Your task to perform on an android device: uninstall "PUBG MOBILE" Image 0: 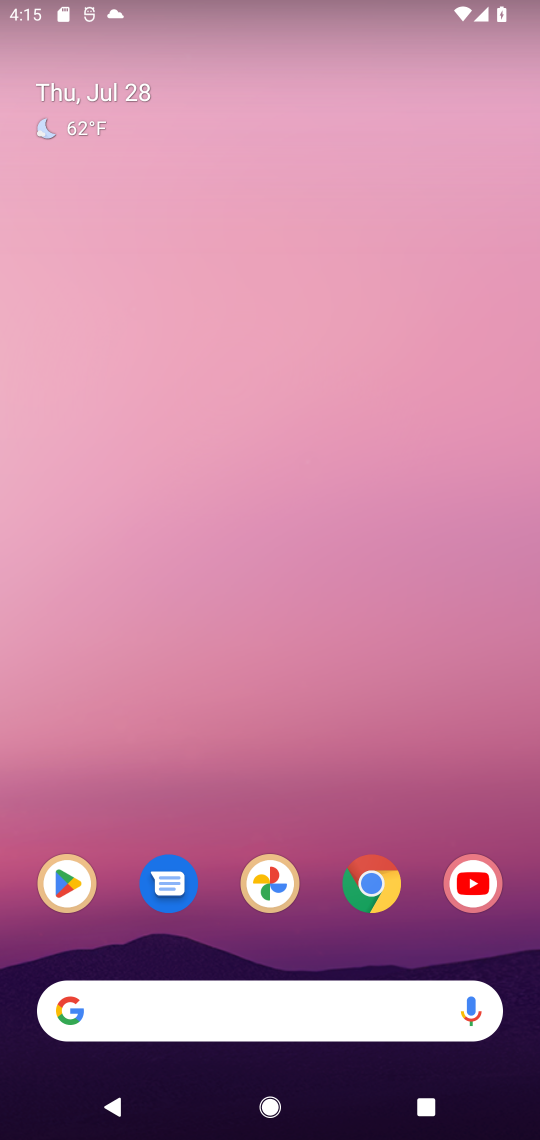
Step 0: drag from (263, 859) to (466, 14)
Your task to perform on an android device: uninstall "PUBG MOBILE" Image 1: 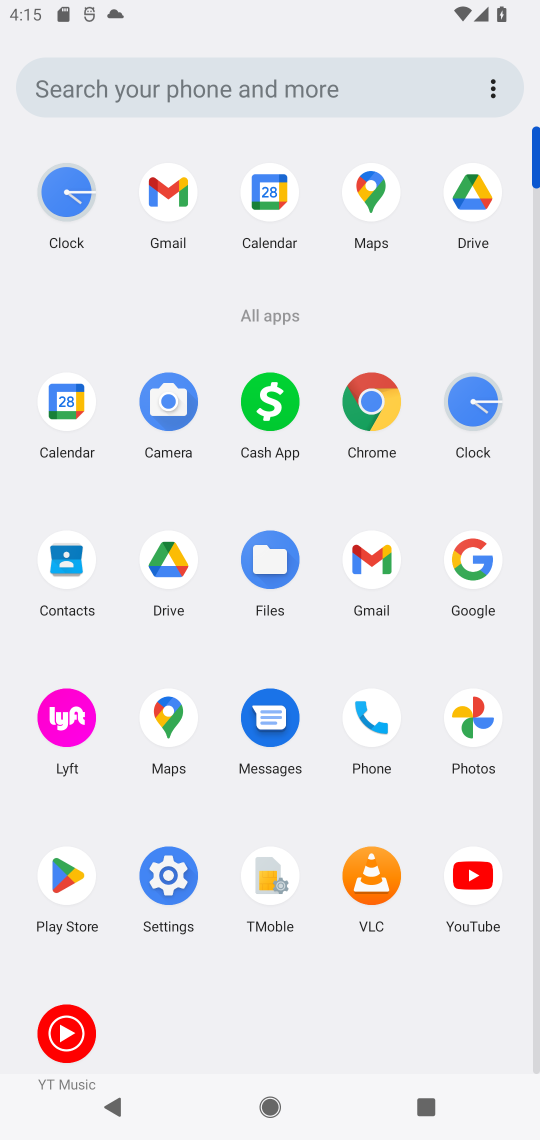
Step 1: click (63, 896)
Your task to perform on an android device: uninstall "PUBG MOBILE" Image 2: 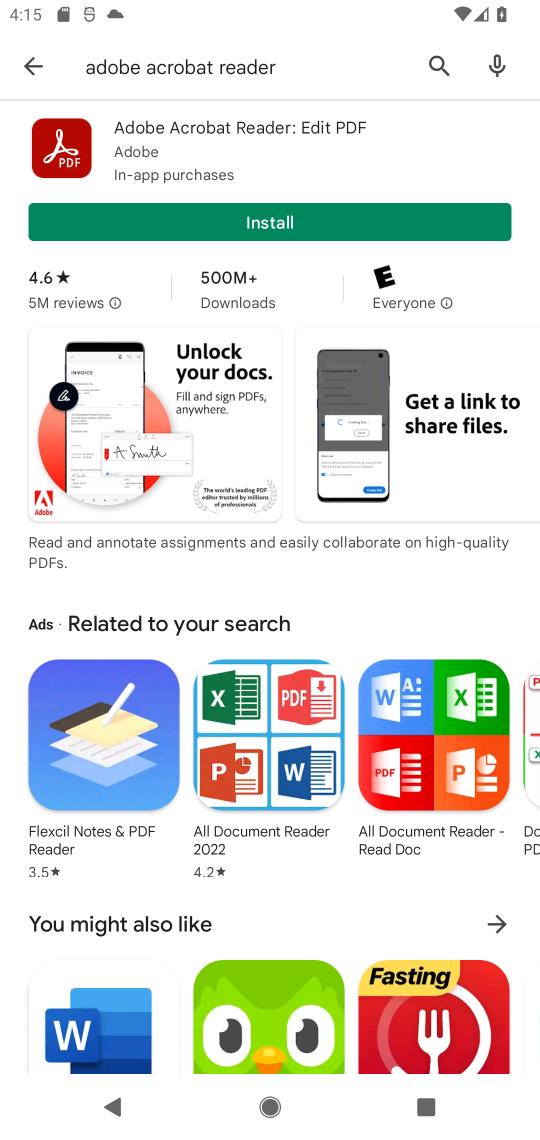
Step 2: click (433, 52)
Your task to perform on an android device: uninstall "PUBG MOBILE" Image 3: 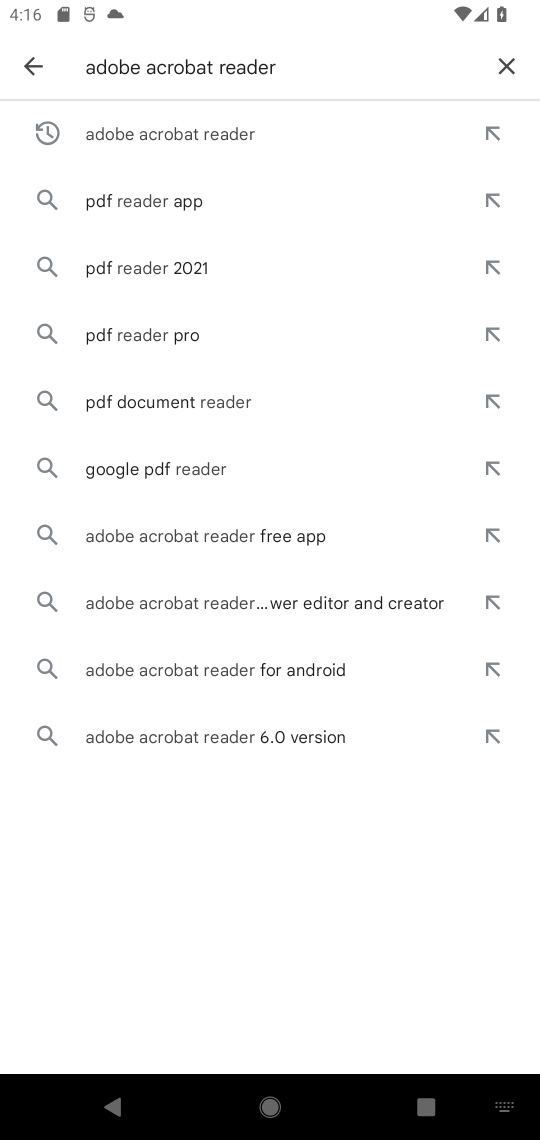
Step 3: click (496, 67)
Your task to perform on an android device: uninstall "PUBG MOBILE" Image 4: 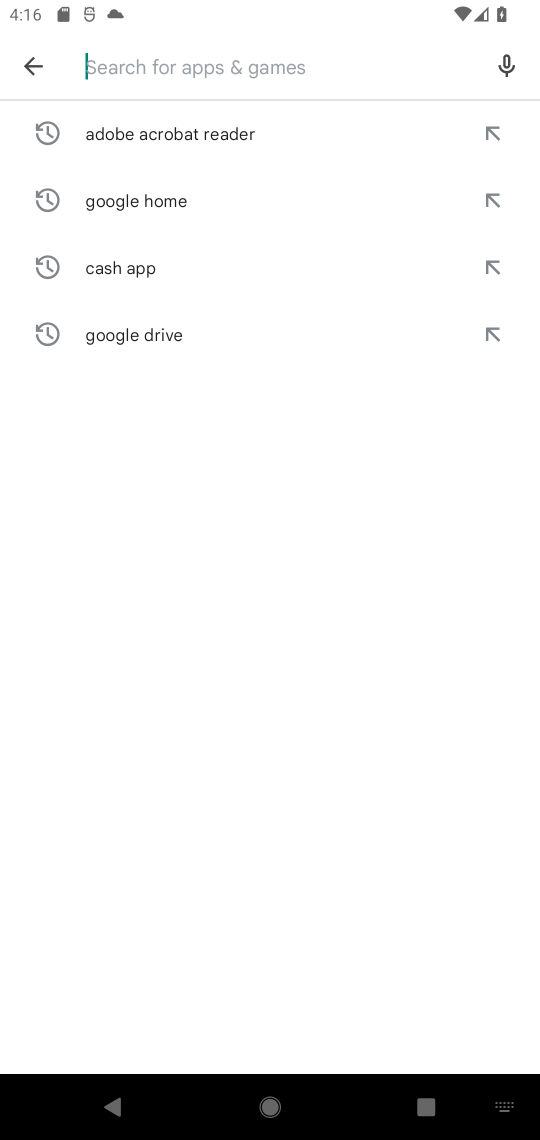
Step 4: type "PUBG MOBILE"
Your task to perform on an android device: uninstall "PUBG MOBILE" Image 5: 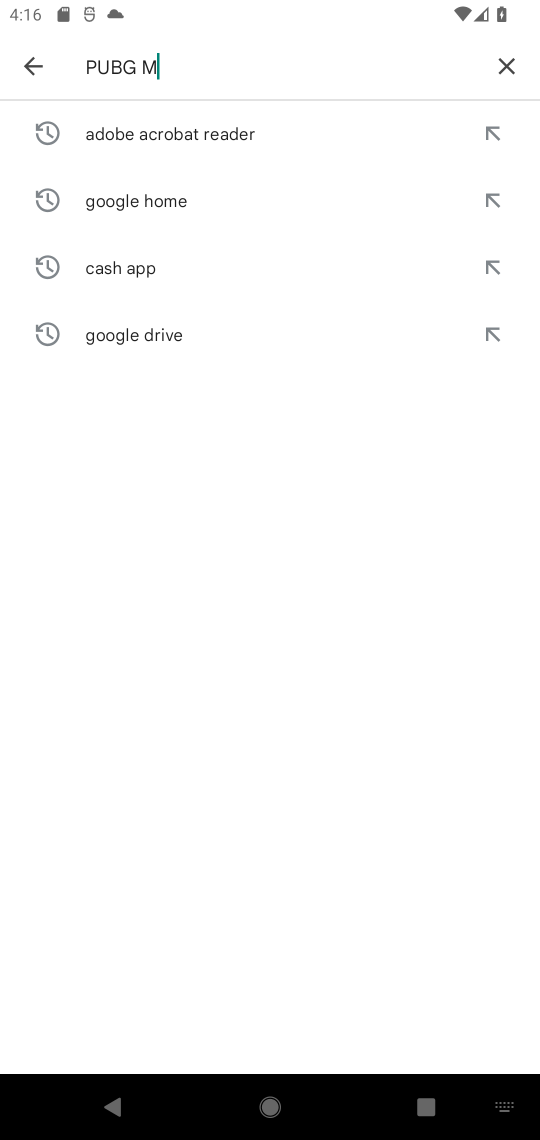
Step 5: type ""
Your task to perform on an android device: uninstall "PUBG MOBILE" Image 6: 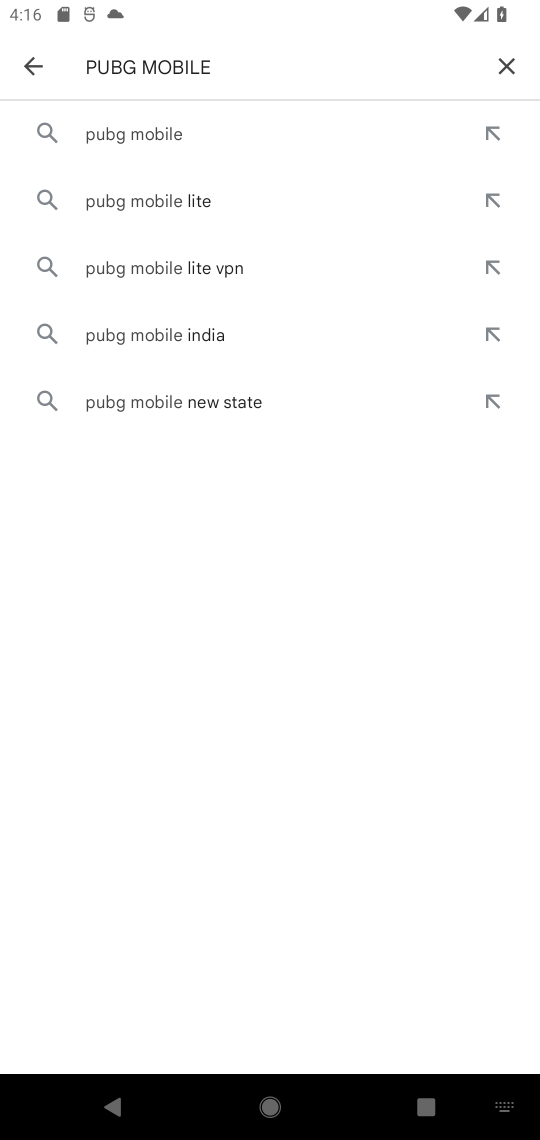
Step 6: click (181, 130)
Your task to perform on an android device: uninstall "PUBG MOBILE" Image 7: 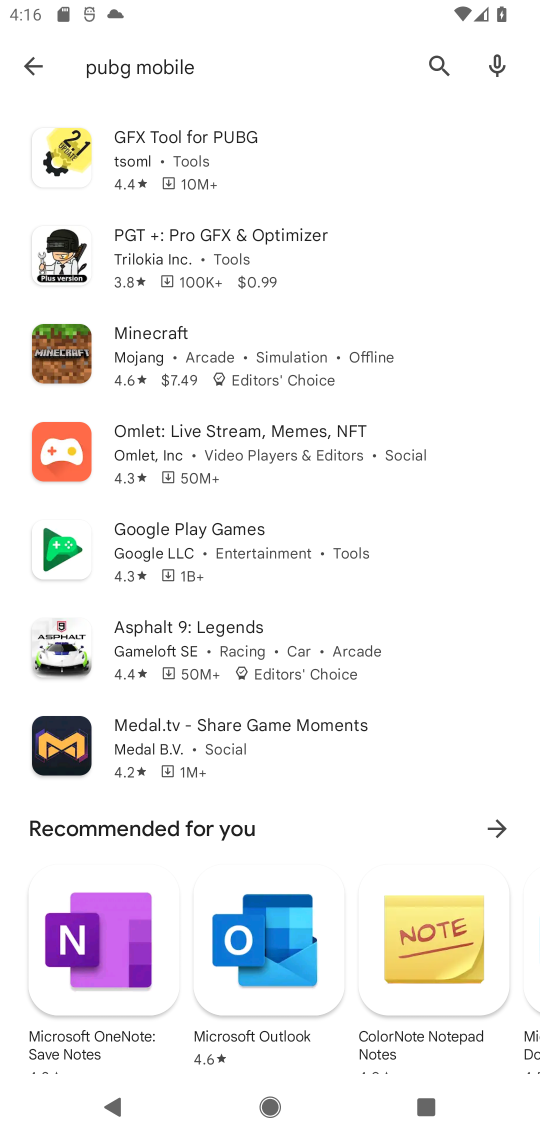
Step 7: task complete